Your task to perform on an android device: refresh tabs in the chrome app Image 0: 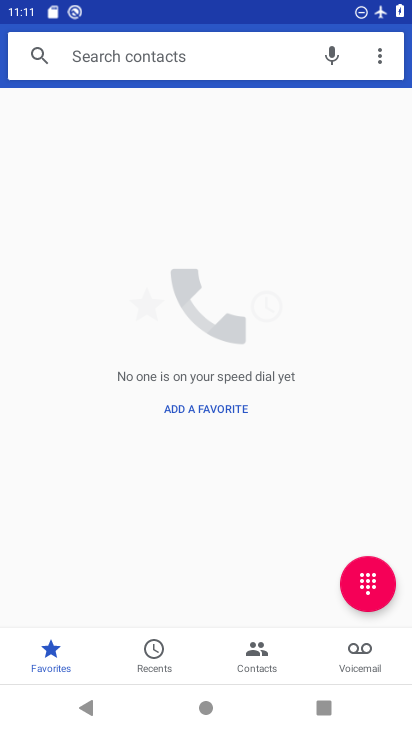
Step 0: press home button
Your task to perform on an android device: refresh tabs in the chrome app Image 1: 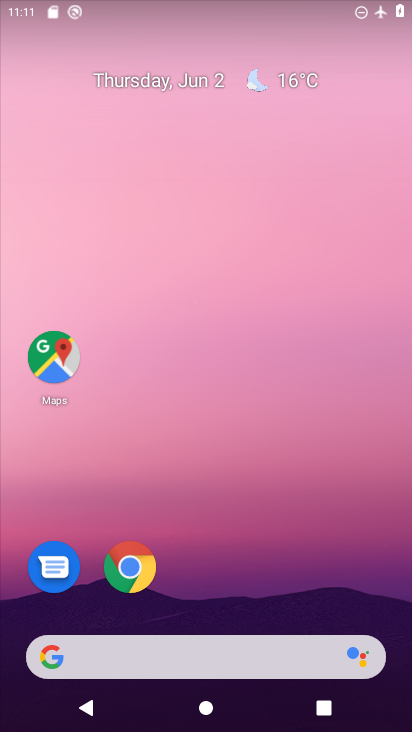
Step 1: click (134, 576)
Your task to perform on an android device: refresh tabs in the chrome app Image 2: 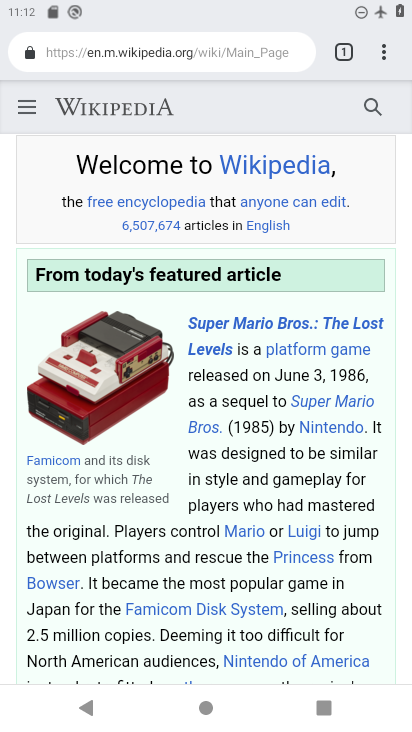
Step 2: click (384, 57)
Your task to perform on an android device: refresh tabs in the chrome app Image 3: 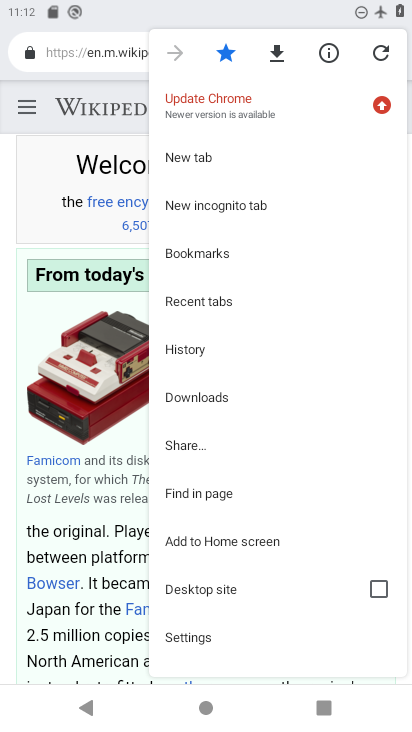
Step 3: click (382, 48)
Your task to perform on an android device: refresh tabs in the chrome app Image 4: 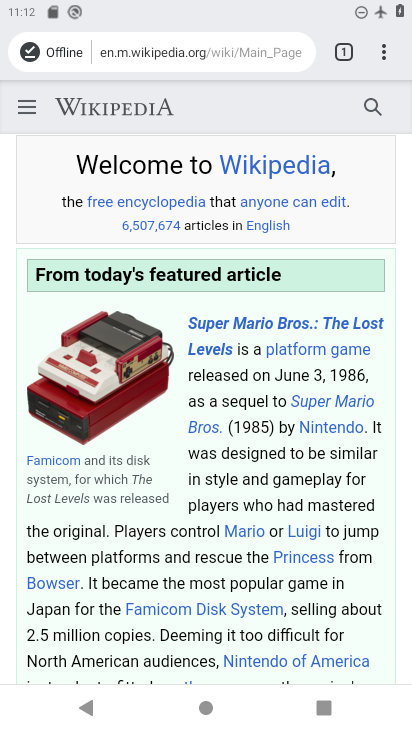
Step 4: task complete